Your task to perform on an android device: Show me popular videos on Youtube Image 0: 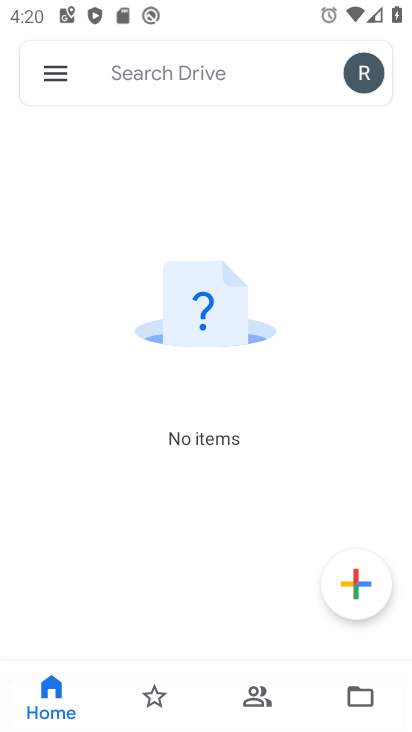
Step 0: press home button
Your task to perform on an android device: Show me popular videos on Youtube Image 1: 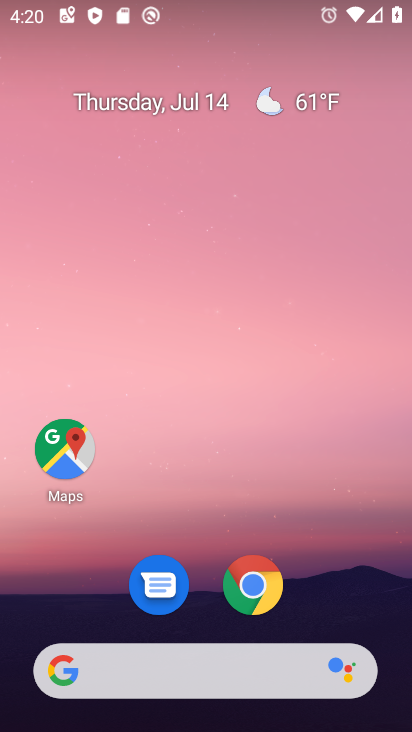
Step 1: drag from (302, 582) to (287, 34)
Your task to perform on an android device: Show me popular videos on Youtube Image 2: 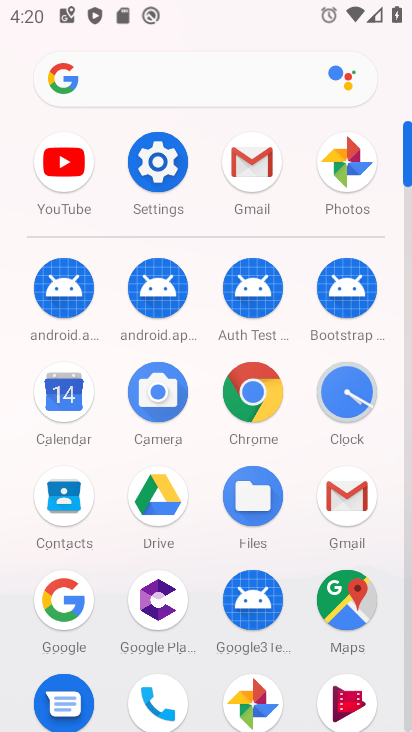
Step 2: click (53, 162)
Your task to perform on an android device: Show me popular videos on Youtube Image 3: 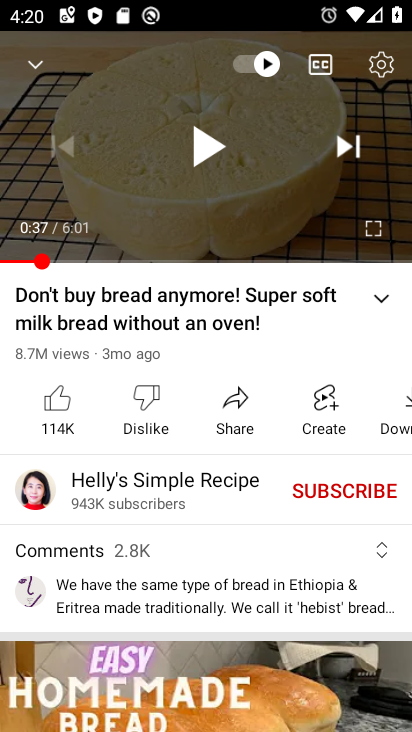
Step 3: press back button
Your task to perform on an android device: Show me popular videos on Youtube Image 4: 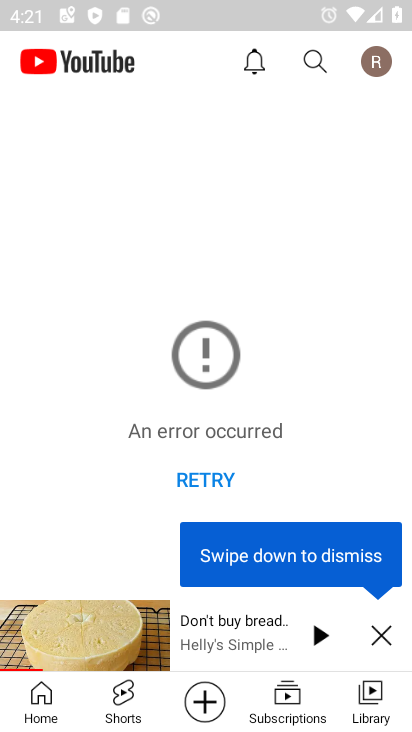
Step 4: click (378, 634)
Your task to perform on an android device: Show me popular videos on Youtube Image 5: 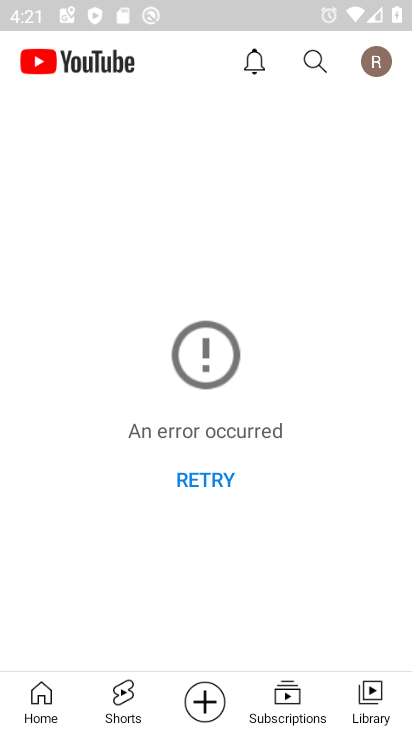
Step 5: click (43, 695)
Your task to perform on an android device: Show me popular videos on Youtube Image 6: 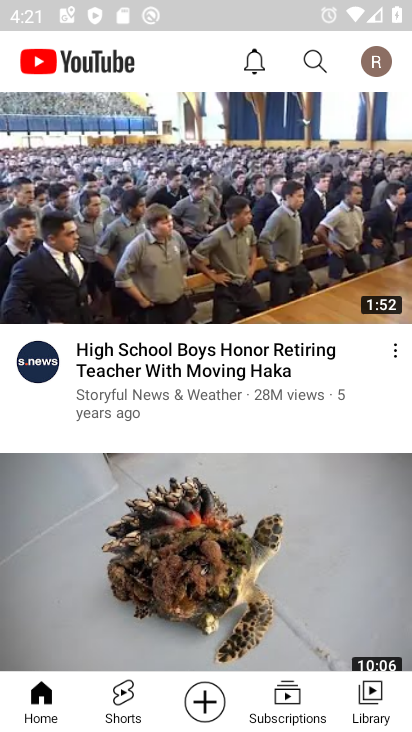
Step 6: click (310, 55)
Your task to perform on an android device: Show me popular videos on Youtube Image 7: 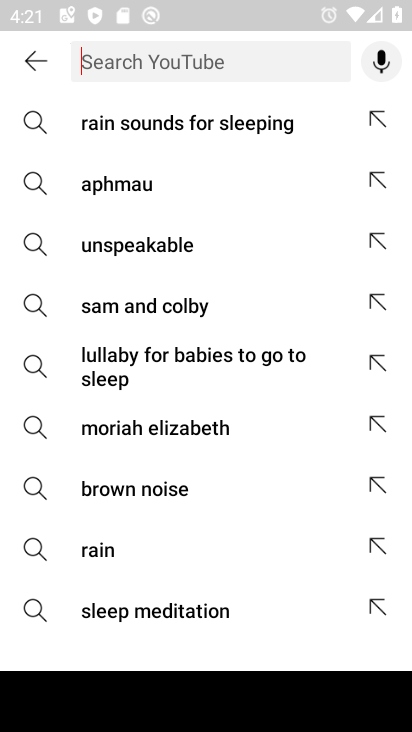
Step 7: type "popular videos"
Your task to perform on an android device: Show me popular videos on Youtube Image 8: 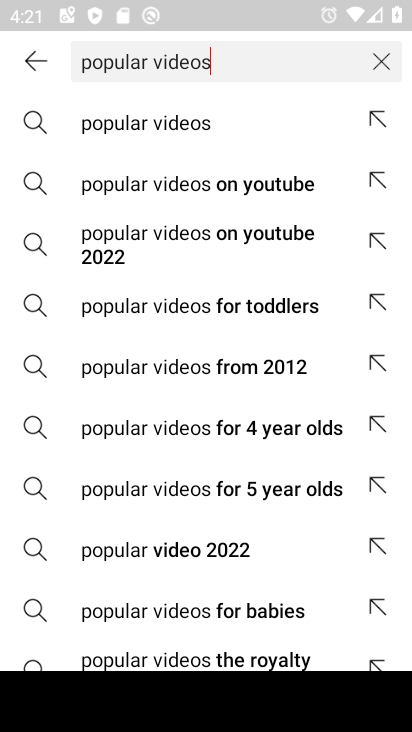
Step 8: click (204, 184)
Your task to perform on an android device: Show me popular videos on Youtube Image 9: 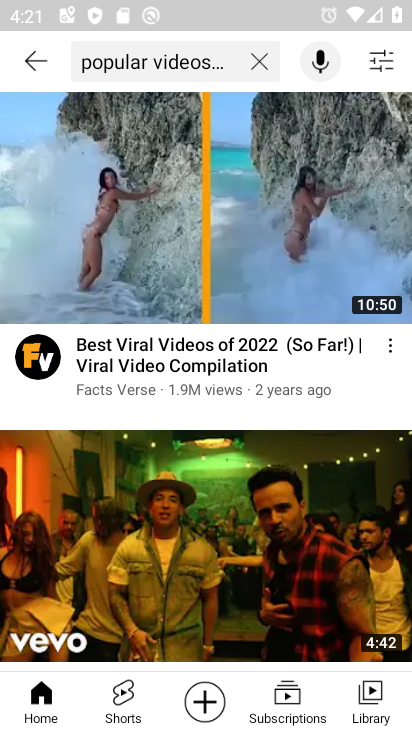
Step 9: drag from (211, 522) to (228, 171)
Your task to perform on an android device: Show me popular videos on Youtube Image 10: 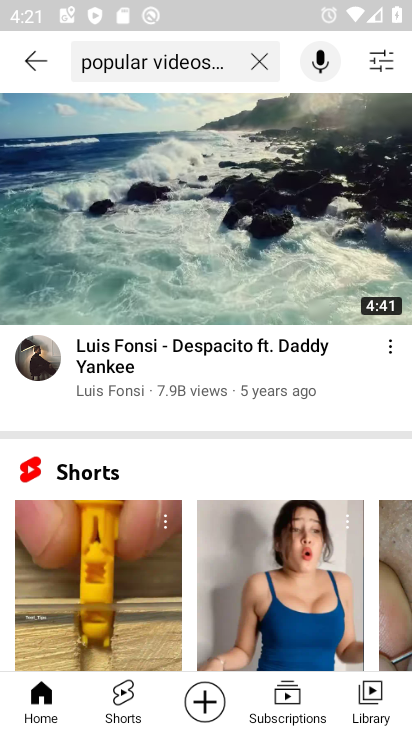
Step 10: drag from (223, 593) to (251, 218)
Your task to perform on an android device: Show me popular videos on Youtube Image 11: 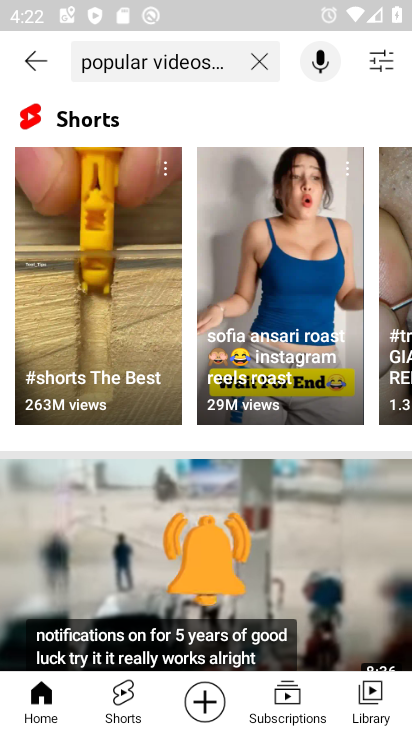
Step 11: click (152, 278)
Your task to perform on an android device: Show me popular videos on Youtube Image 12: 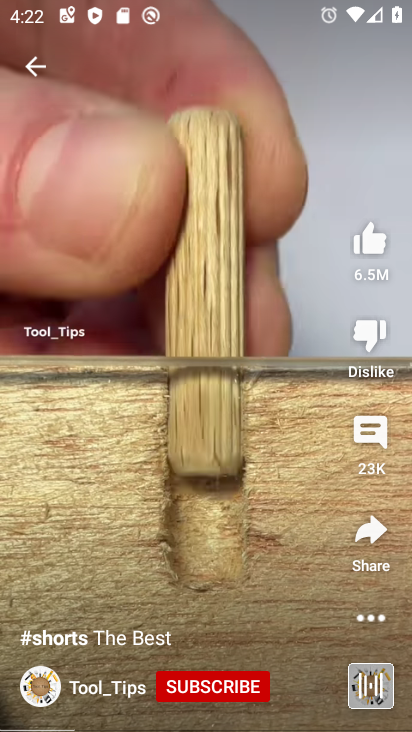
Step 12: task complete